Your task to perform on an android device: check battery use Image 0: 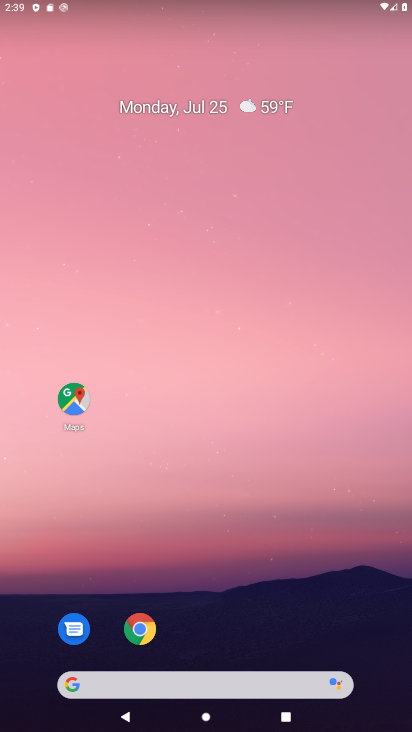
Step 0: drag from (312, 610) to (207, 241)
Your task to perform on an android device: check battery use Image 1: 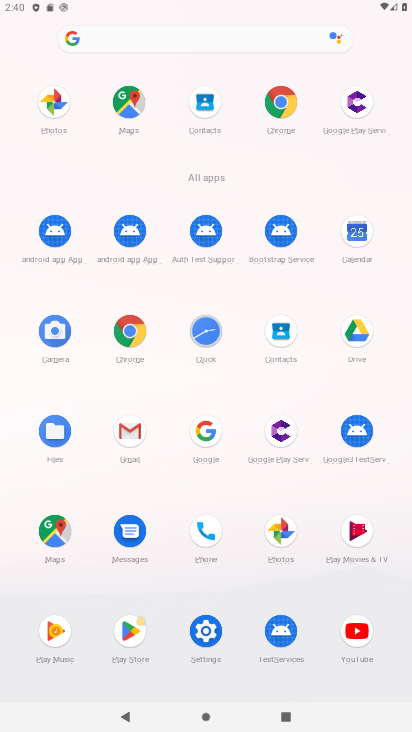
Step 1: click (206, 624)
Your task to perform on an android device: check battery use Image 2: 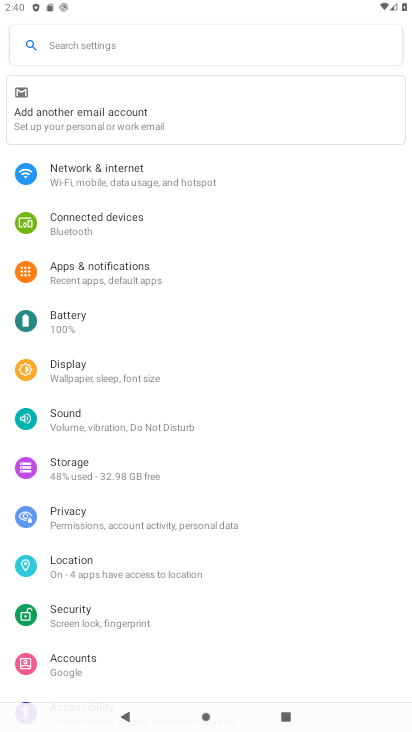
Step 2: click (73, 320)
Your task to perform on an android device: check battery use Image 3: 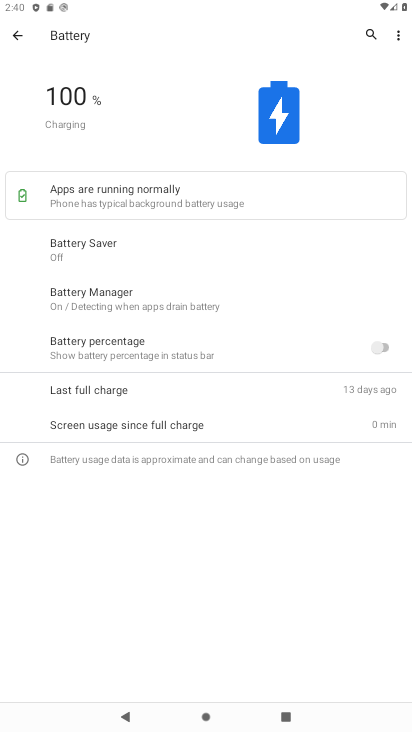
Step 3: click (399, 36)
Your task to perform on an android device: check battery use Image 4: 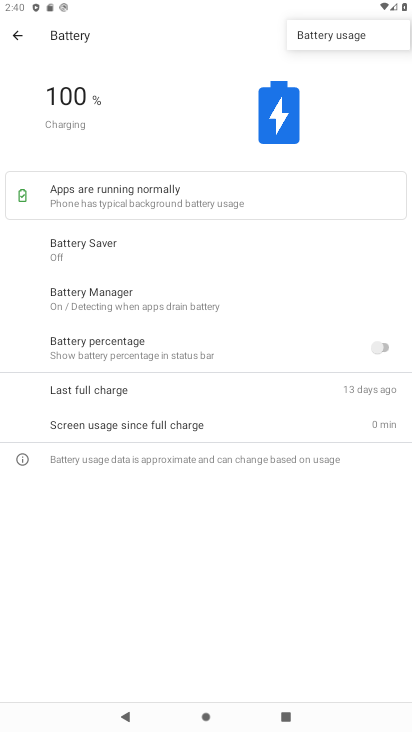
Step 4: click (356, 42)
Your task to perform on an android device: check battery use Image 5: 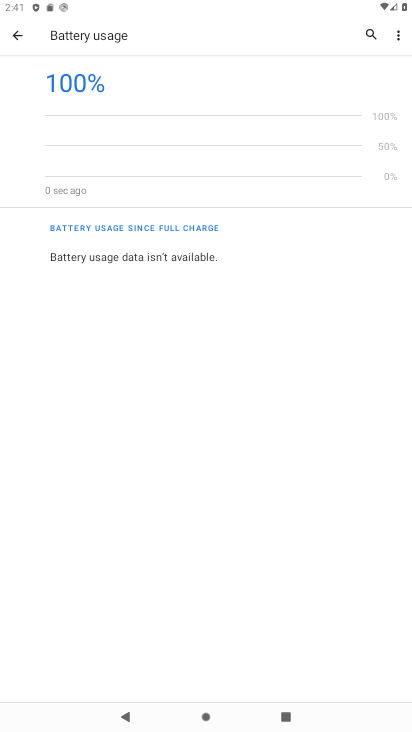
Step 5: task complete